Your task to perform on an android device: turn on javascript in the chrome app Image 0: 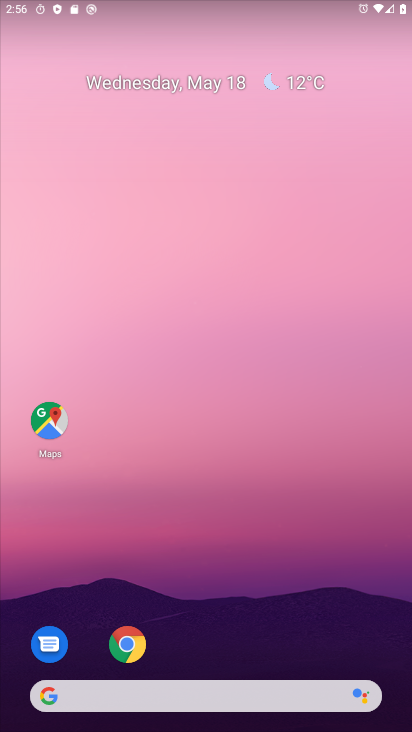
Step 0: click (126, 637)
Your task to perform on an android device: turn on javascript in the chrome app Image 1: 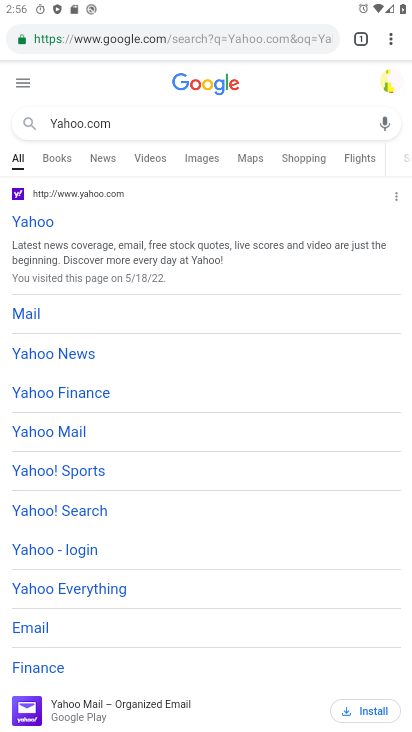
Step 1: click (387, 37)
Your task to perform on an android device: turn on javascript in the chrome app Image 2: 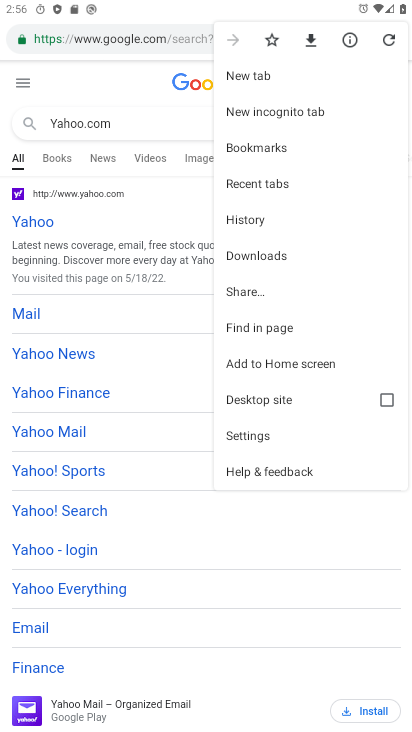
Step 2: click (269, 442)
Your task to perform on an android device: turn on javascript in the chrome app Image 3: 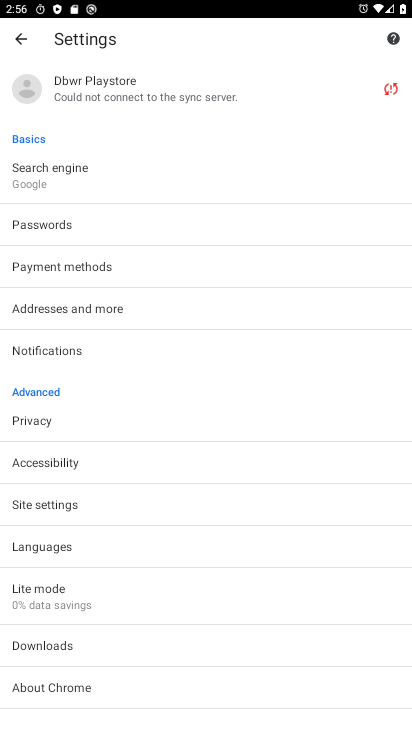
Step 3: drag from (234, 649) to (203, 385)
Your task to perform on an android device: turn on javascript in the chrome app Image 4: 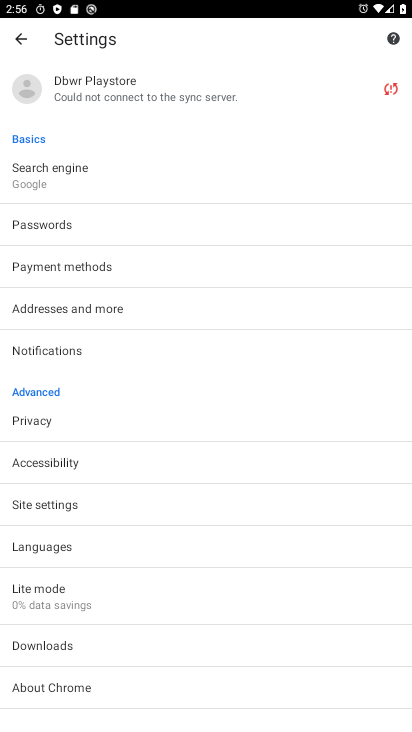
Step 4: click (44, 505)
Your task to perform on an android device: turn on javascript in the chrome app Image 5: 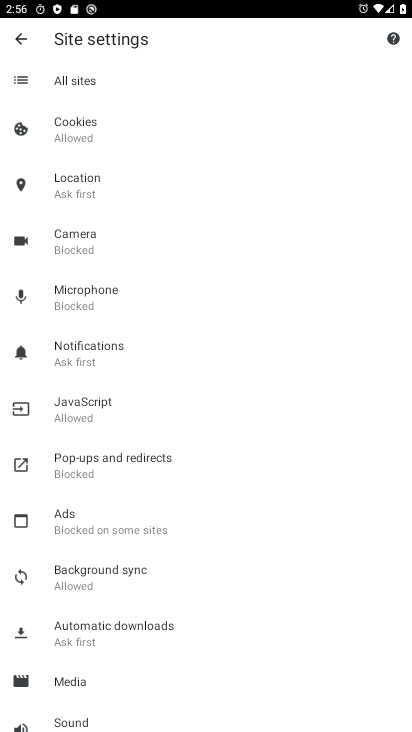
Step 5: click (81, 408)
Your task to perform on an android device: turn on javascript in the chrome app Image 6: 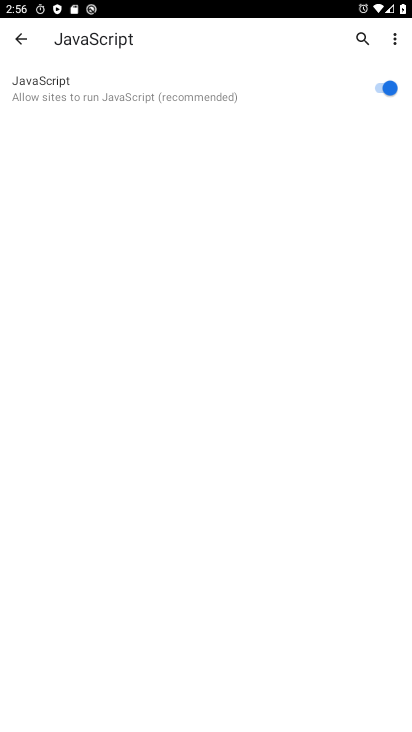
Step 6: task complete